Your task to perform on an android device: find snoozed emails in the gmail app Image 0: 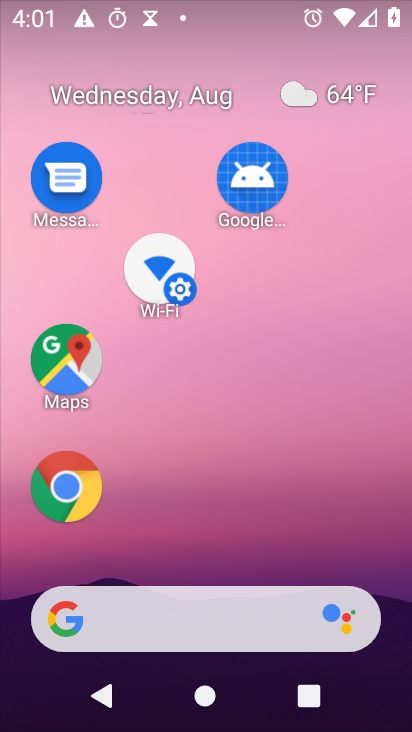
Step 0: press home button
Your task to perform on an android device: find snoozed emails in the gmail app Image 1: 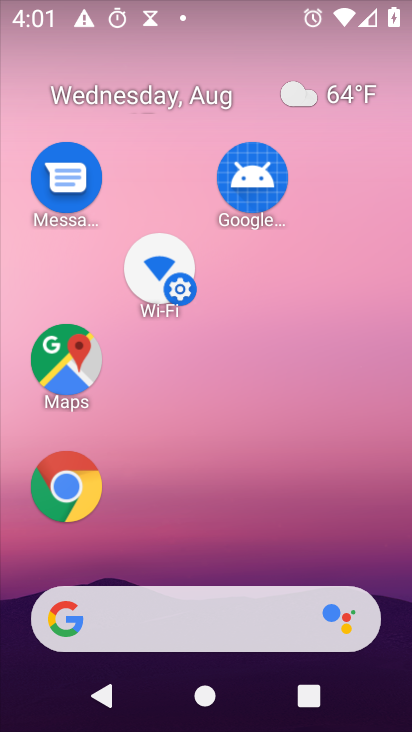
Step 1: drag from (336, 527) to (388, 24)
Your task to perform on an android device: find snoozed emails in the gmail app Image 2: 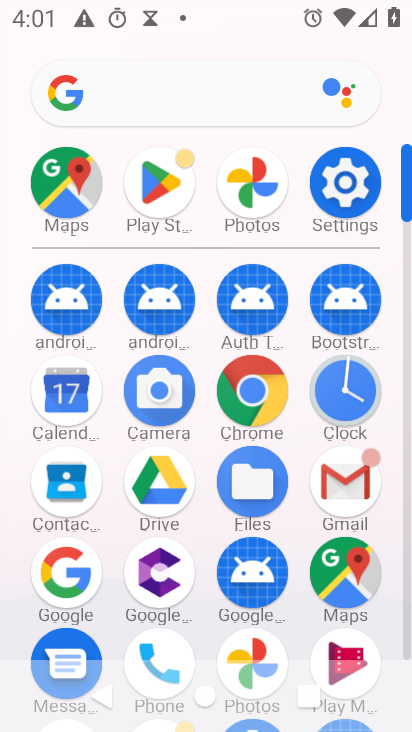
Step 2: click (326, 476)
Your task to perform on an android device: find snoozed emails in the gmail app Image 3: 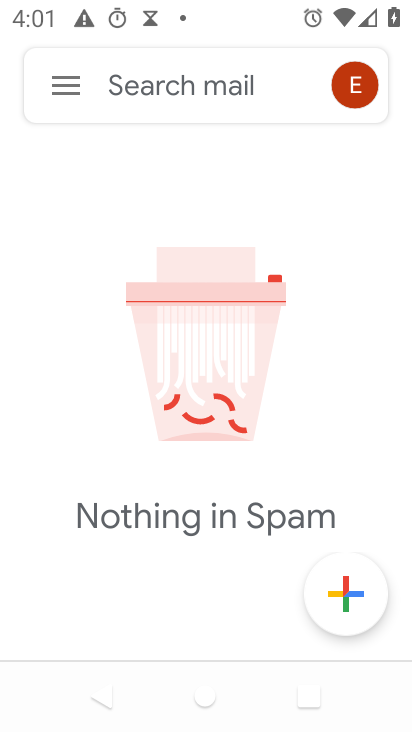
Step 3: click (56, 87)
Your task to perform on an android device: find snoozed emails in the gmail app Image 4: 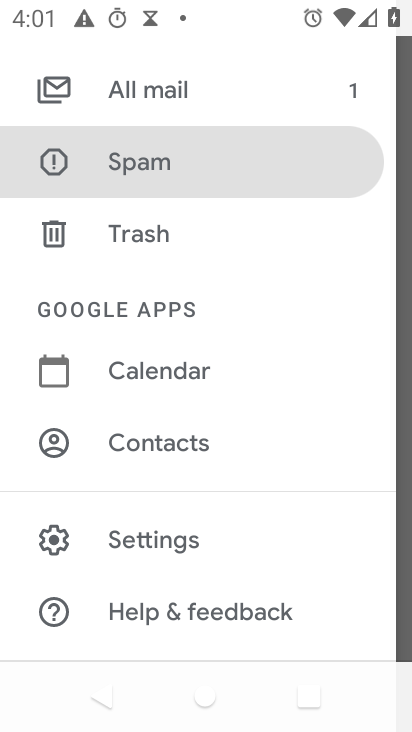
Step 4: drag from (228, 252) to (192, 725)
Your task to perform on an android device: find snoozed emails in the gmail app Image 5: 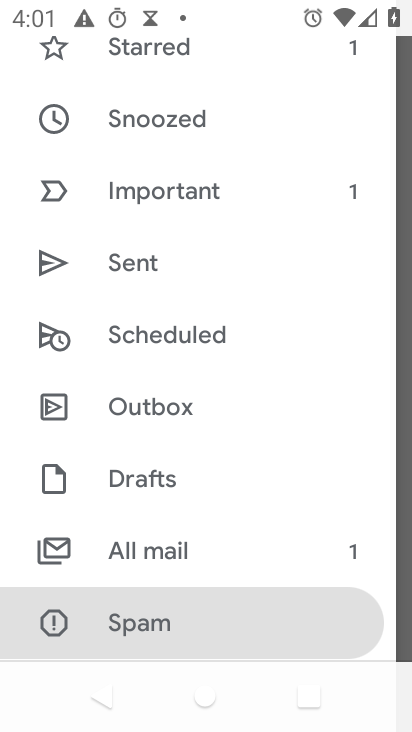
Step 5: click (163, 121)
Your task to perform on an android device: find snoozed emails in the gmail app Image 6: 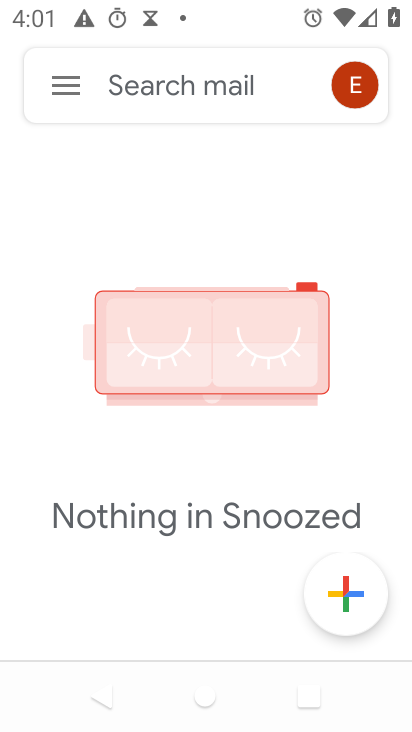
Step 6: task complete